Your task to perform on an android device: Toggle the flashlight Image 0: 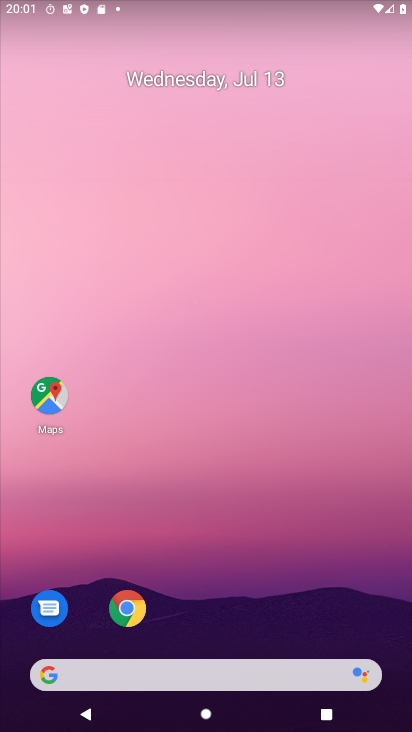
Step 0: drag from (229, 640) to (213, 150)
Your task to perform on an android device: Toggle the flashlight Image 1: 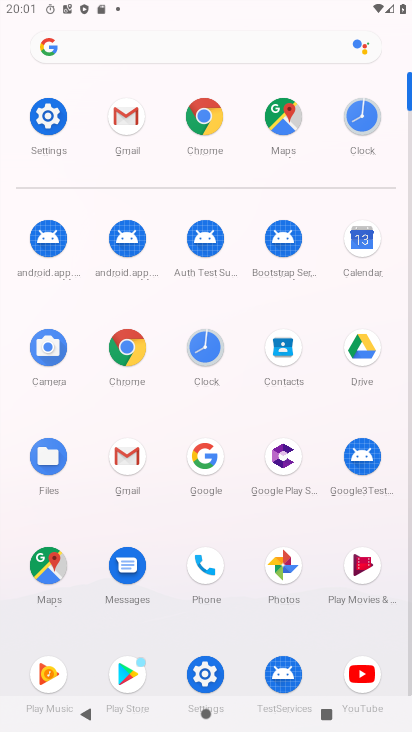
Step 1: click (44, 104)
Your task to perform on an android device: Toggle the flashlight Image 2: 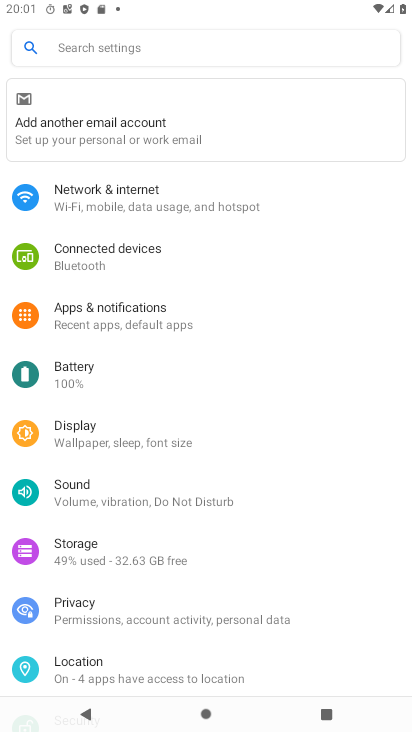
Step 2: task complete